Your task to perform on an android device: toggle improve location accuracy Image 0: 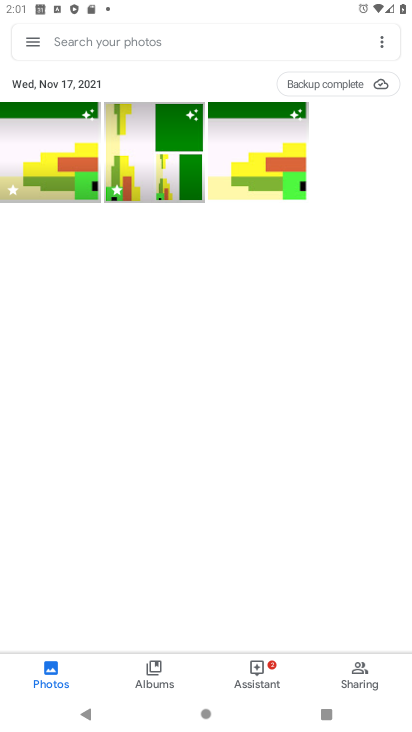
Step 0: press home button
Your task to perform on an android device: toggle improve location accuracy Image 1: 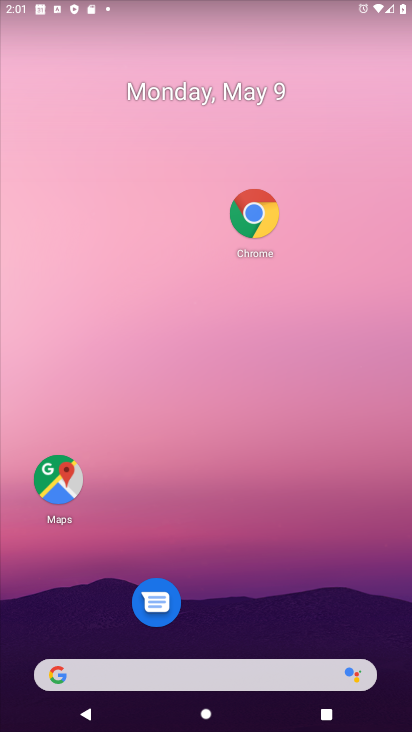
Step 1: drag from (279, 571) to (301, 235)
Your task to perform on an android device: toggle improve location accuracy Image 2: 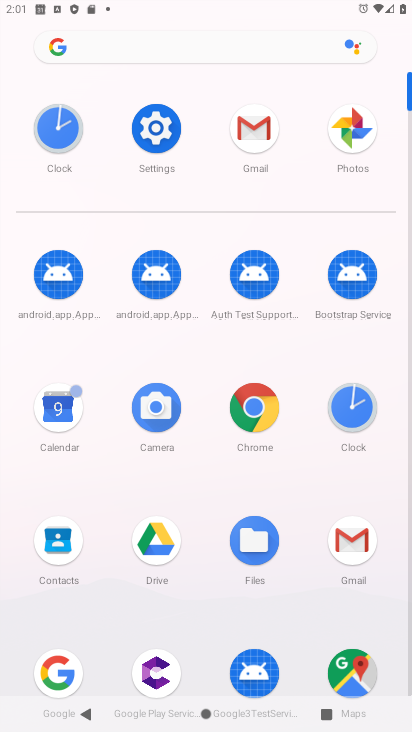
Step 2: click (160, 129)
Your task to perform on an android device: toggle improve location accuracy Image 3: 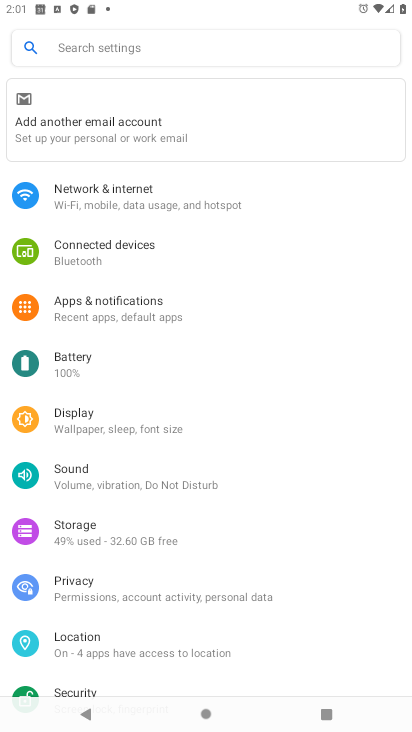
Step 3: click (138, 631)
Your task to perform on an android device: toggle improve location accuracy Image 4: 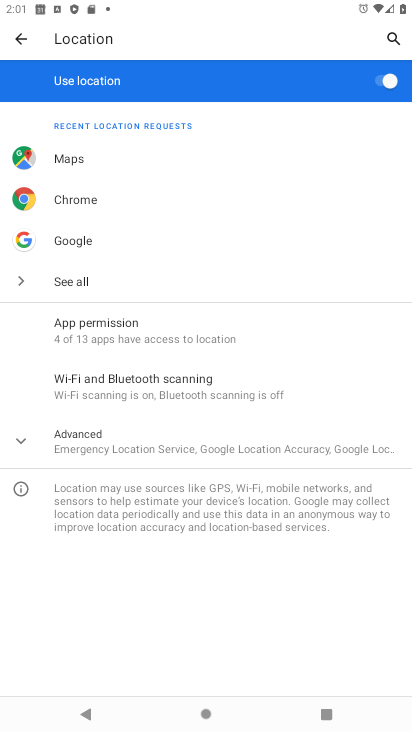
Step 4: click (154, 428)
Your task to perform on an android device: toggle improve location accuracy Image 5: 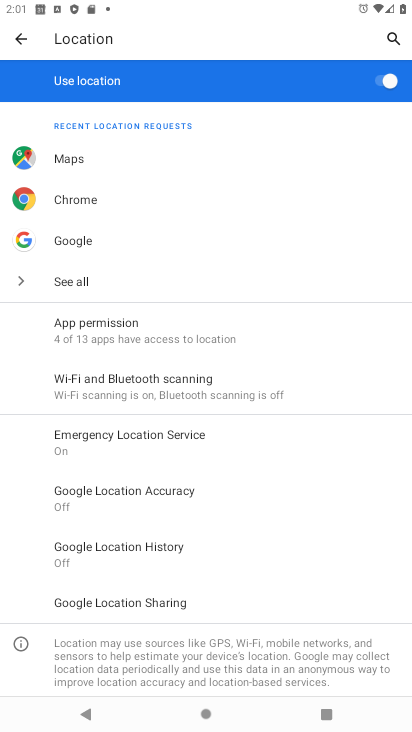
Step 5: click (172, 507)
Your task to perform on an android device: toggle improve location accuracy Image 6: 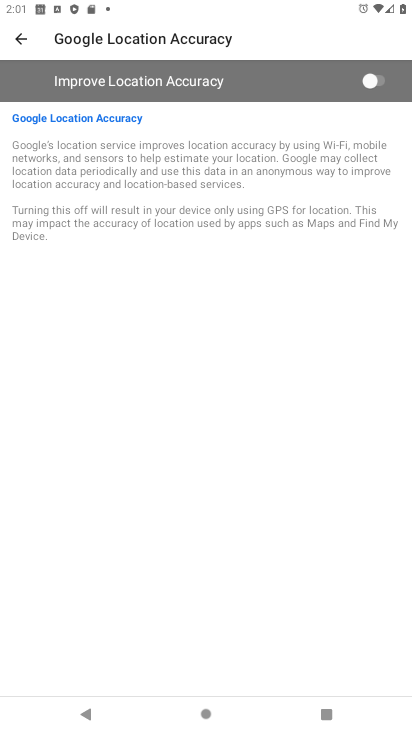
Step 6: click (377, 74)
Your task to perform on an android device: toggle improve location accuracy Image 7: 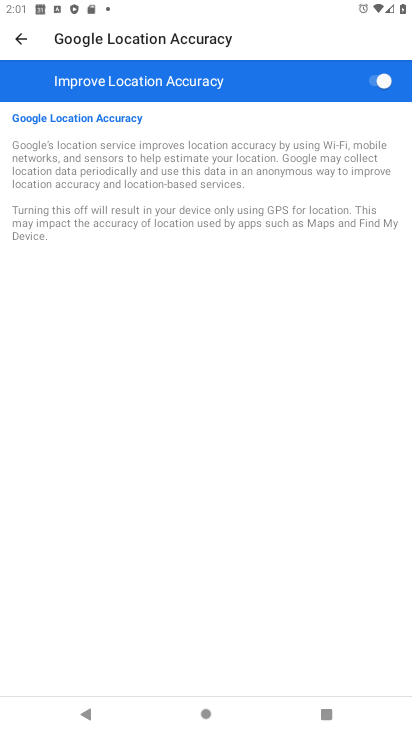
Step 7: task complete